Your task to perform on an android device: Open display settings Image 0: 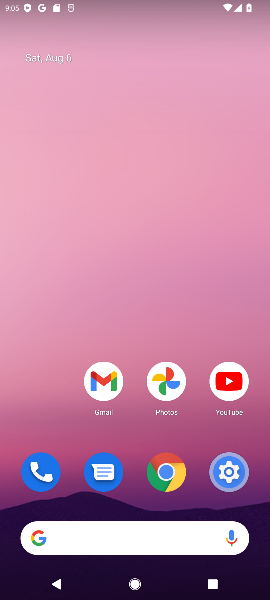
Step 0: click (226, 478)
Your task to perform on an android device: Open display settings Image 1: 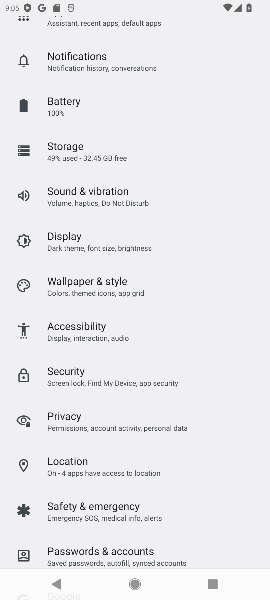
Step 1: click (74, 239)
Your task to perform on an android device: Open display settings Image 2: 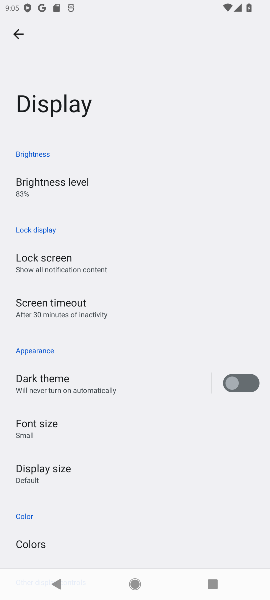
Step 2: task complete